Your task to perform on an android device: Open Wikipedia Image 0: 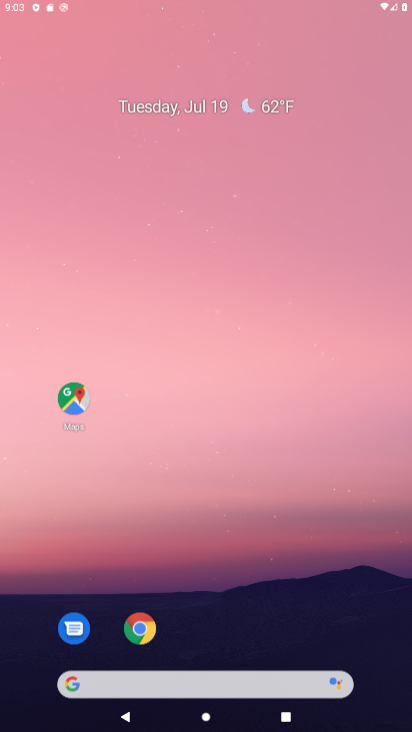
Step 0: press home button
Your task to perform on an android device: Open Wikipedia Image 1: 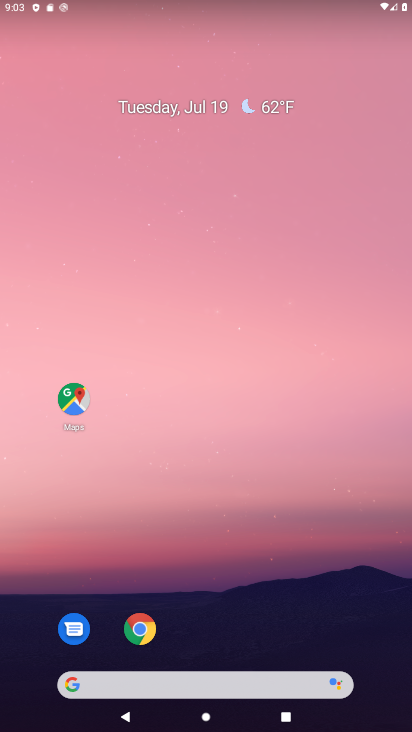
Step 1: click (138, 626)
Your task to perform on an android device: Open Wikipedia Image 2: 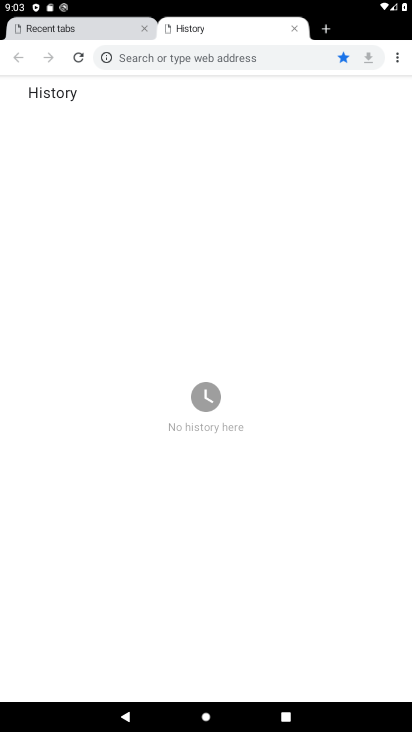
Step 2: click (327, 26)
Your task to perform on an android device: Open Wikipedia Image 3: 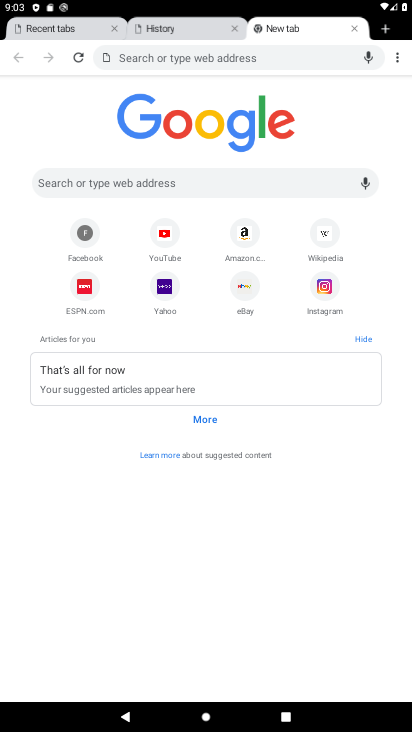
Step 3: click (321, 231)
Your task to perform on an android device: Open Wikipedia Image 4: 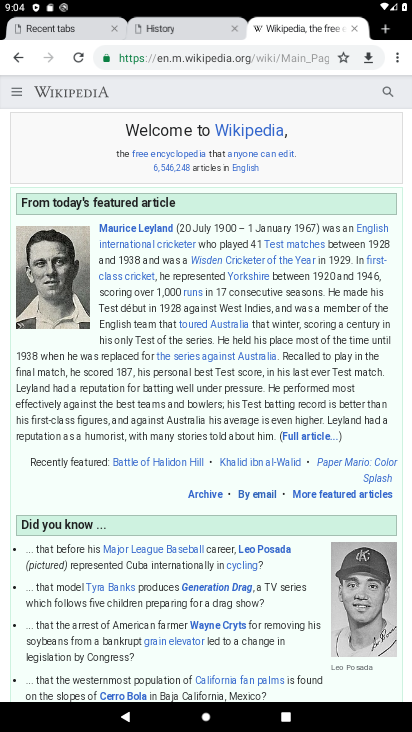
Step 4: task complete